Your task to perform on an android device: Open Yahoo.com Image 0: 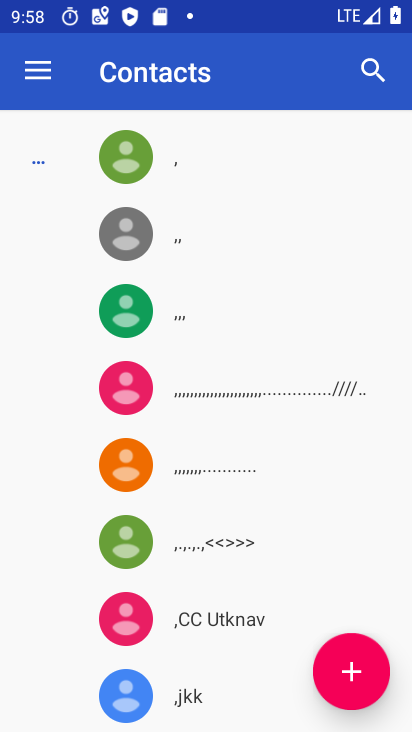
Step 0: press home button
Your task to perform on an android device: Open Yahoo.com Image 1: 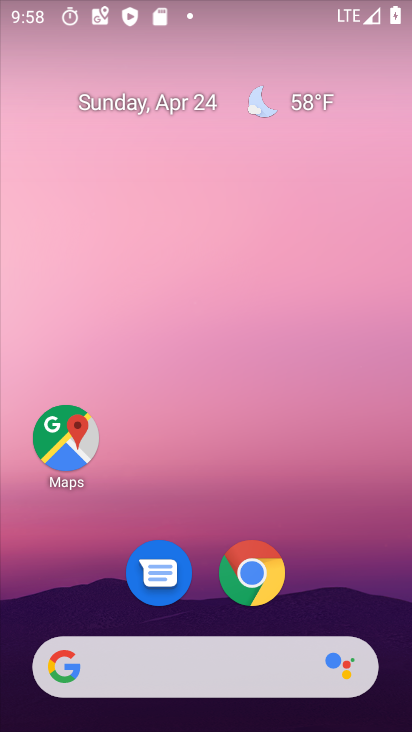
Step 1: drag from (347, 583) to (380, 140)
Your task to perform on an android device: Open Yahoo.com Image 2: 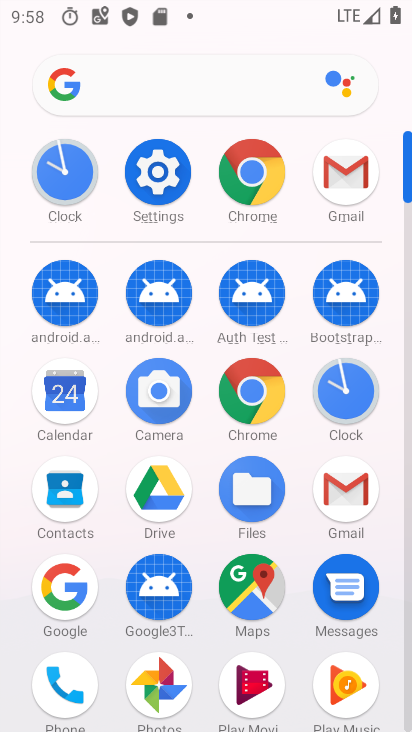
Step 2: click (261, 389)
Your task to perform on an android device: Open Yahoo.com Image 3: 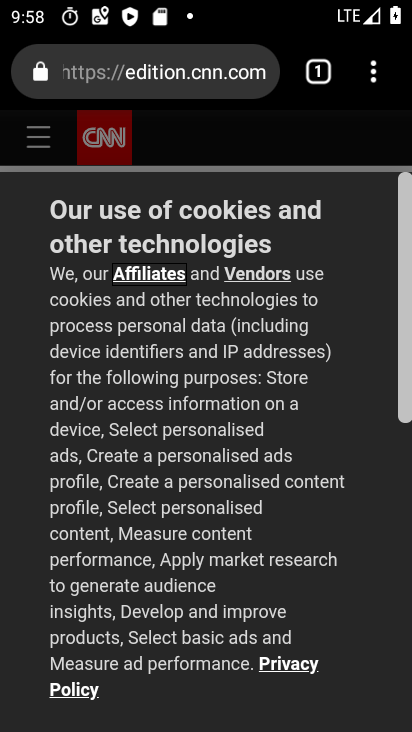
Step 3: click (181, 76)
Your task to perform on an android device: Open Yahoo.com Image 4: 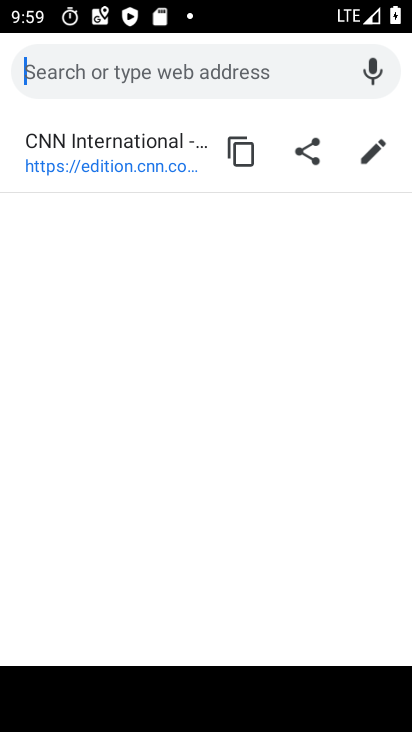
Step 4: type "yahoo.com"
Your task to perform on an android device: Open Yahoo.com Image 5: 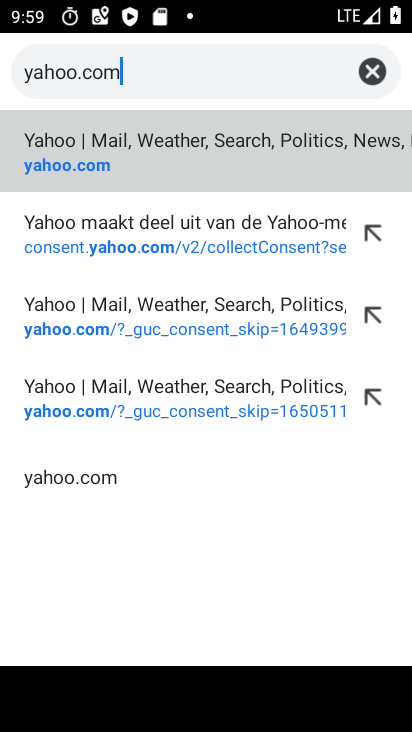
Step 5: click (69, 141)
Your task to perform on an android device: Open Yahoo.com Image 6: 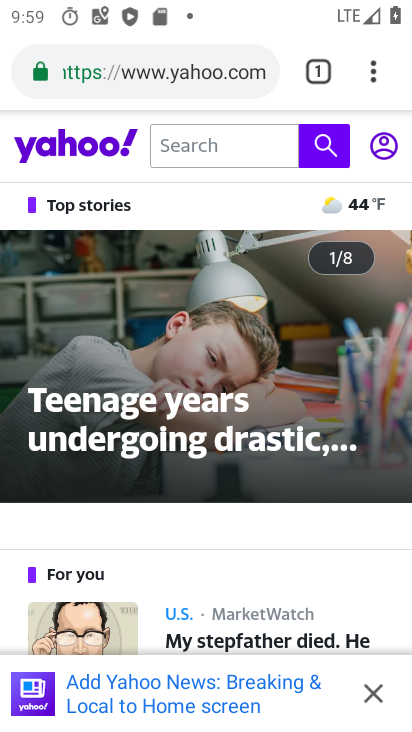
Step 6: task complete